Your task to perform on an android device: change alarm snooze length Image 0: 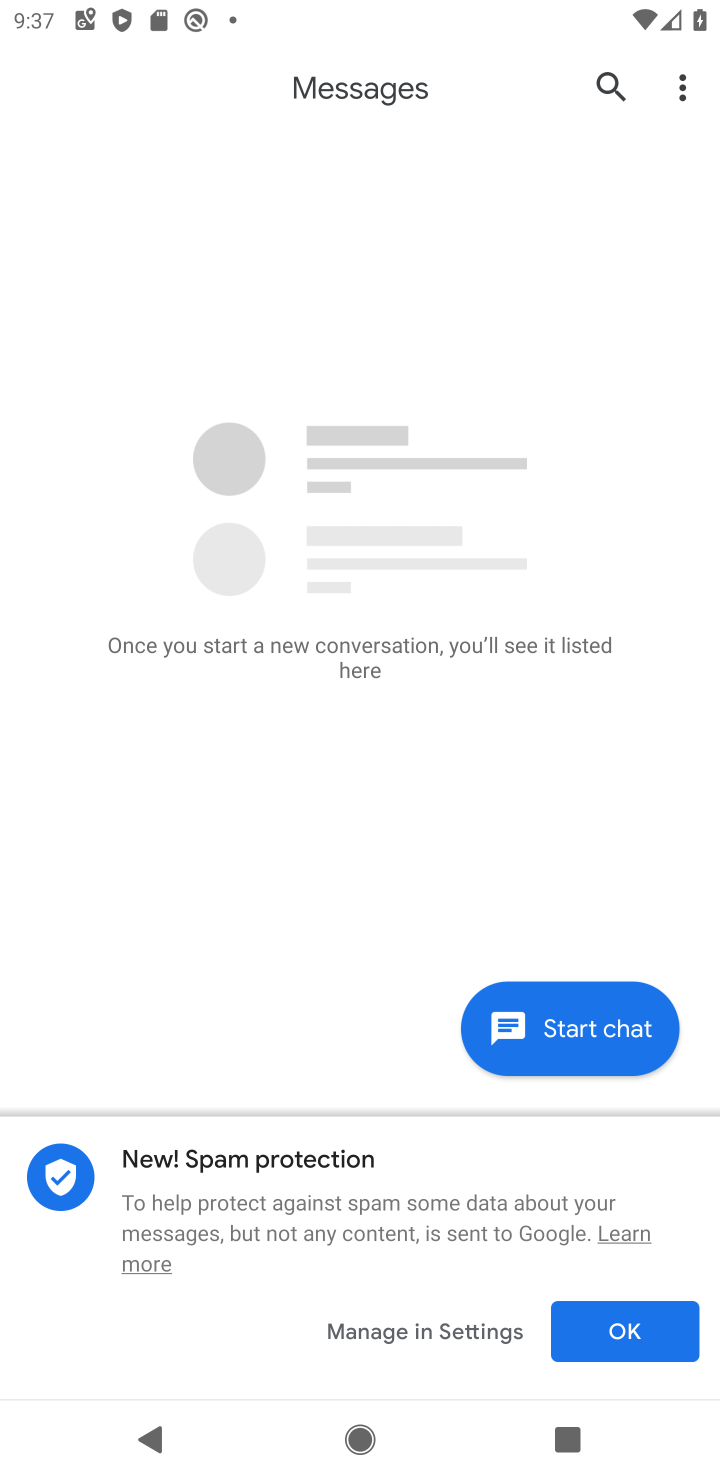
Step 0: press home button
Your task to perform on an android device: change alarm snooze length Image 1: 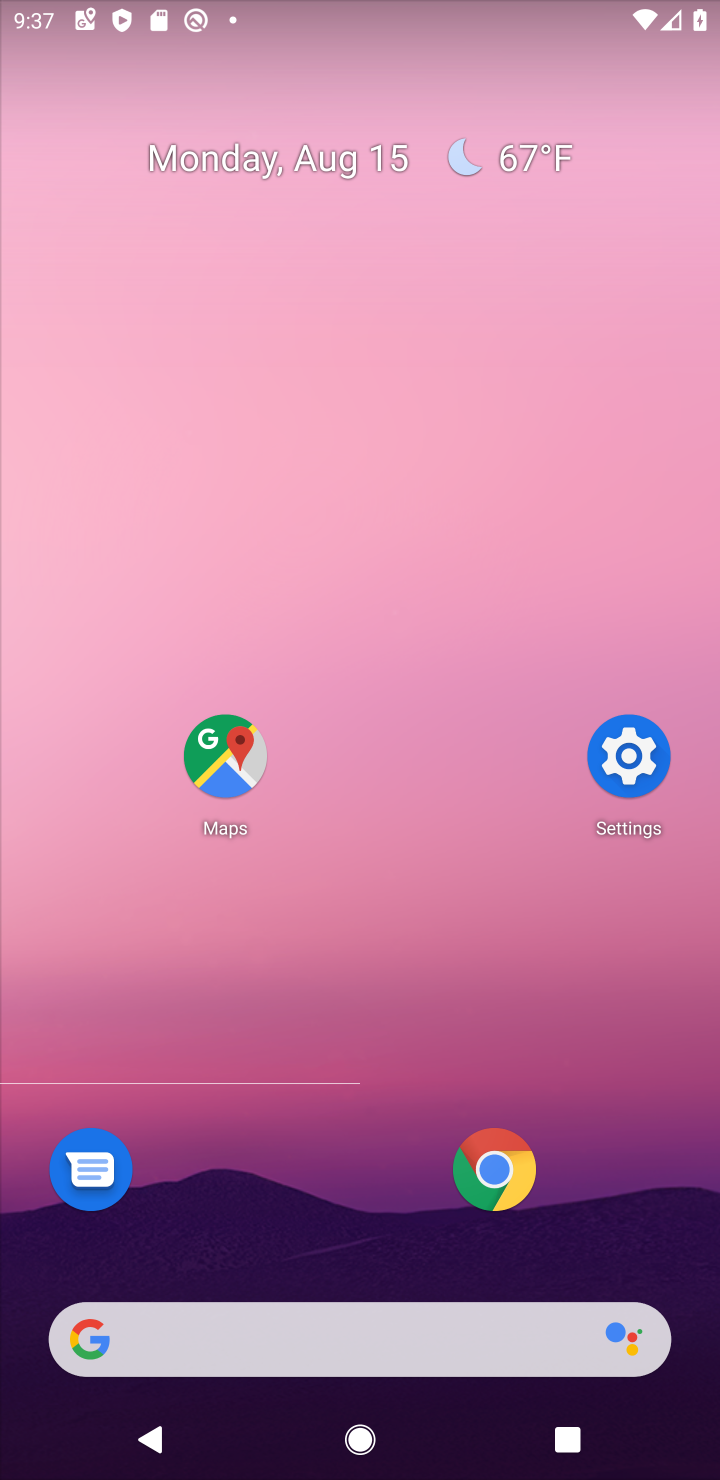
Step 1: drag from (450, 1279) to (563, 61)
Your task to perform on an android device: change alarm snooze length Image 2: 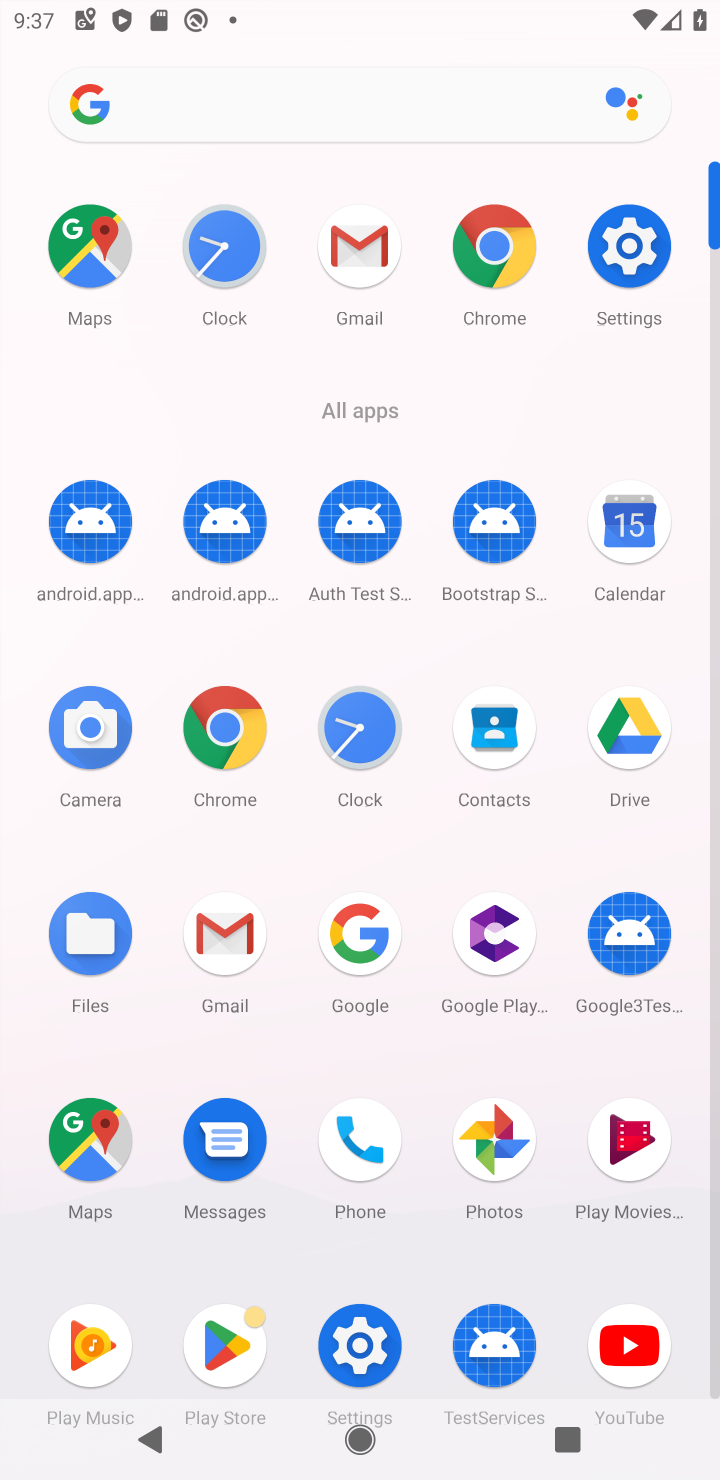
Step 2: click (368, 719)
Your task to perform on an android device: change alarm snooze length Image 3: 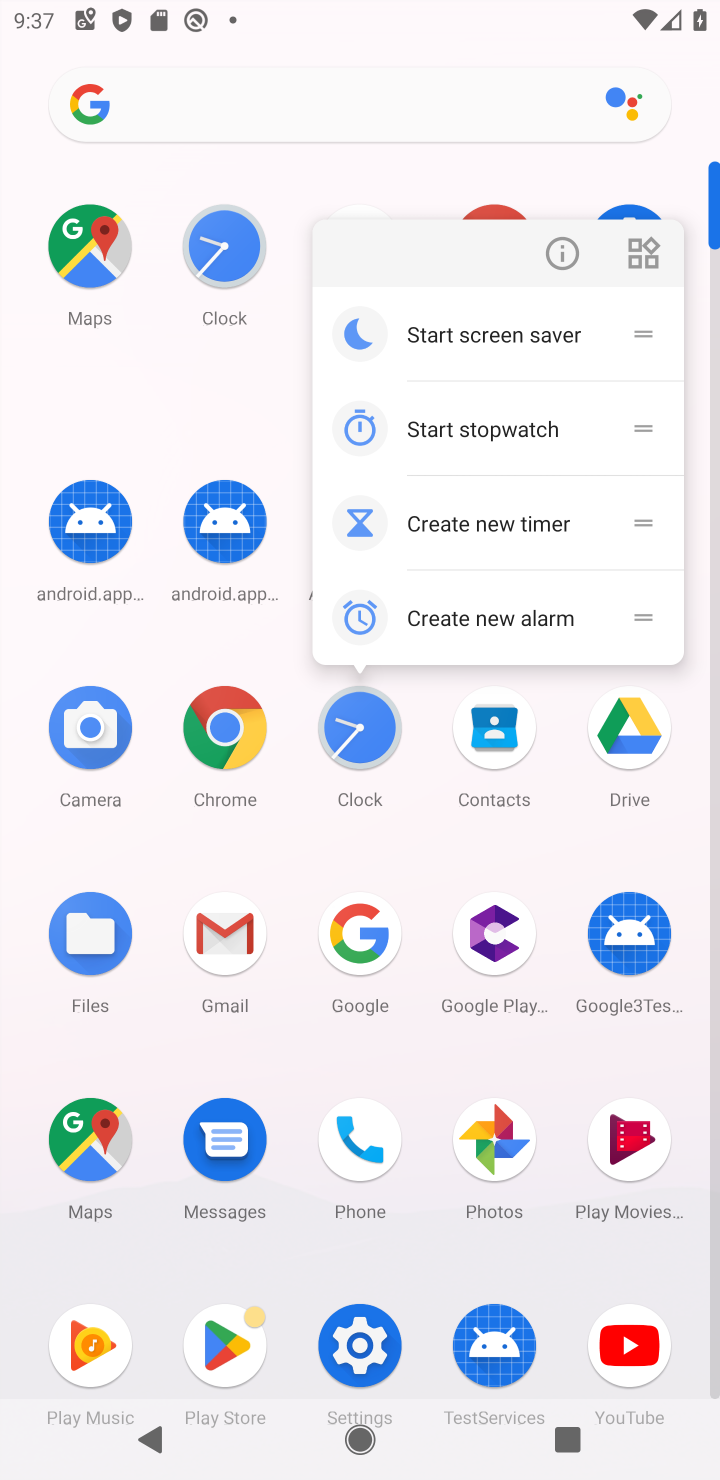
Step 3: click (368, 721)
Your task to perform on an android device: change alarm snooze length Image 4: 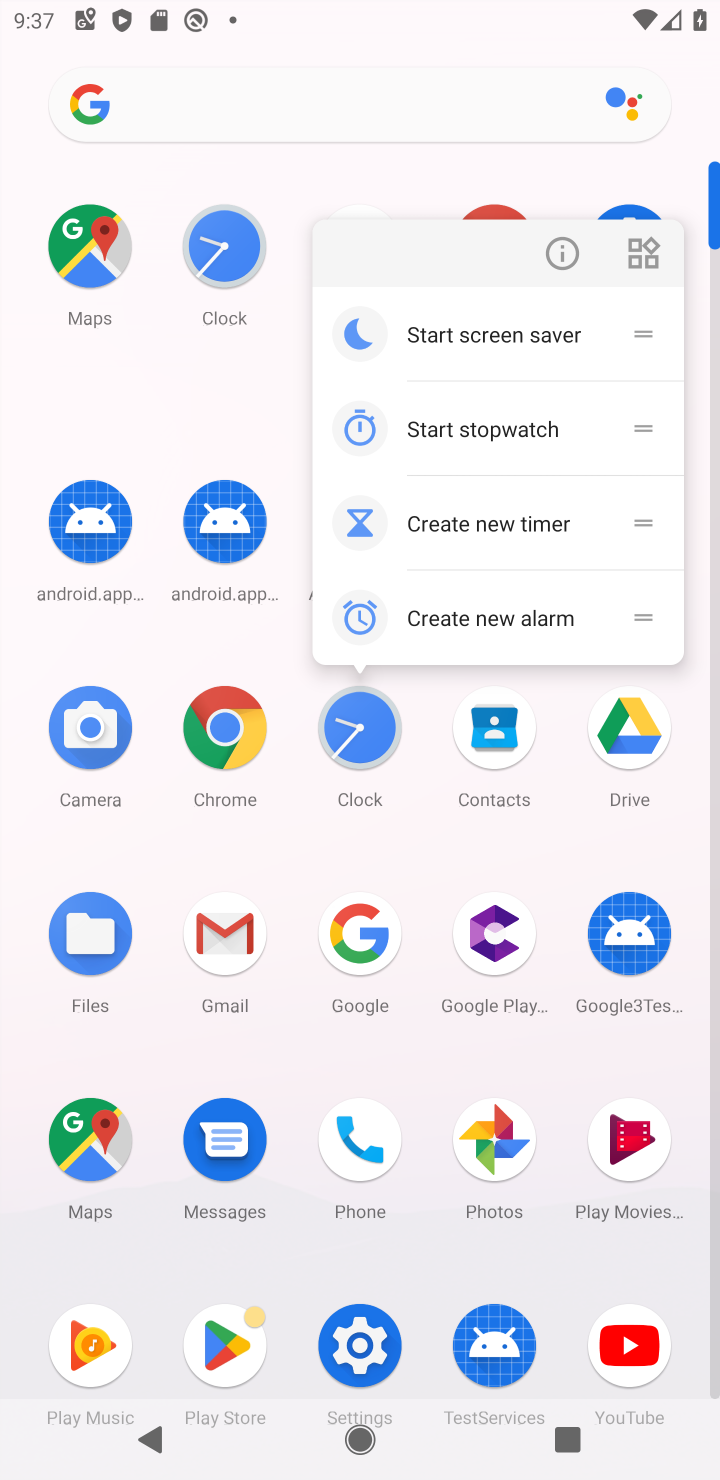
Step 4: click (358, 728)
Your task to perform on an android device: change alarm snooze length Image 5: 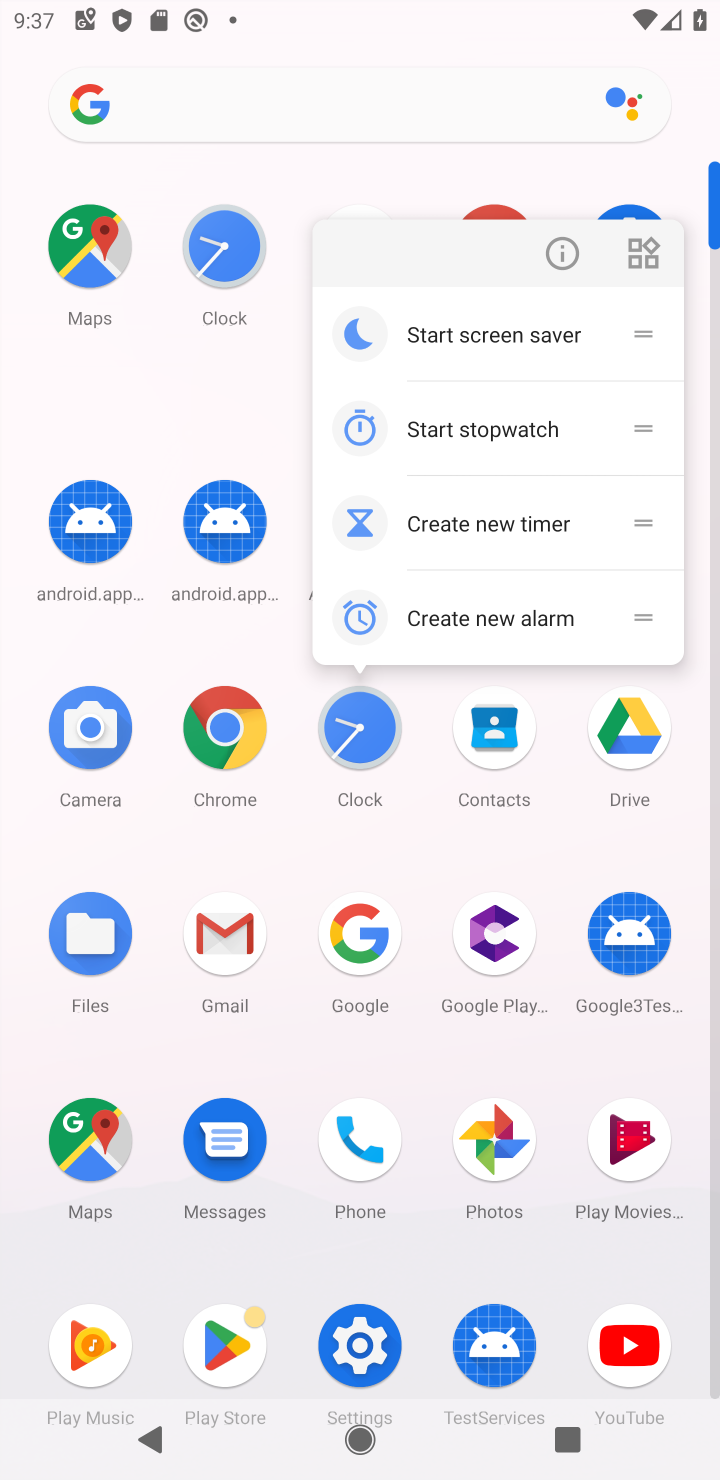
Step 5: click (358, 732)
Your task to perform on an android device: change alarm snooze length Image 6: 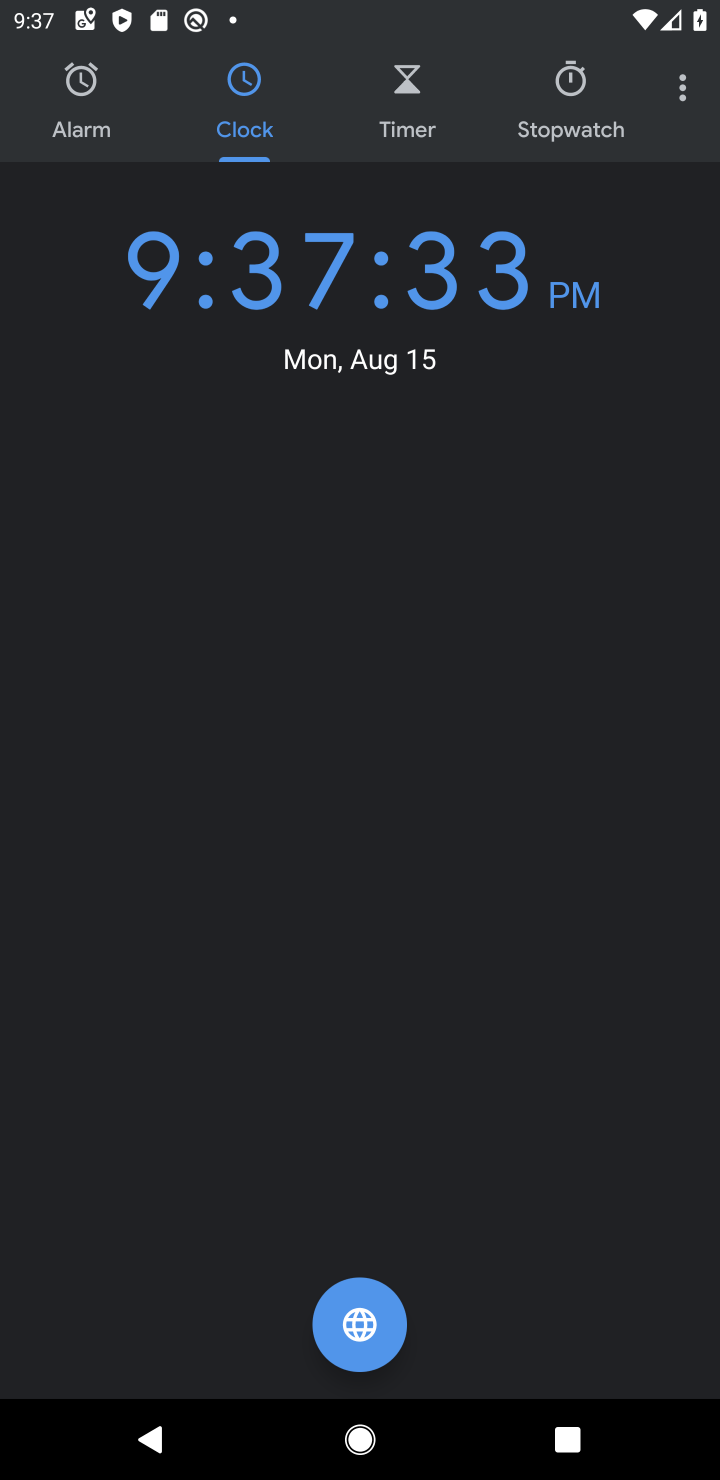
Step 6: click (688, 92)
Your task to perform on an android device: change alarm snooze length Image 7: 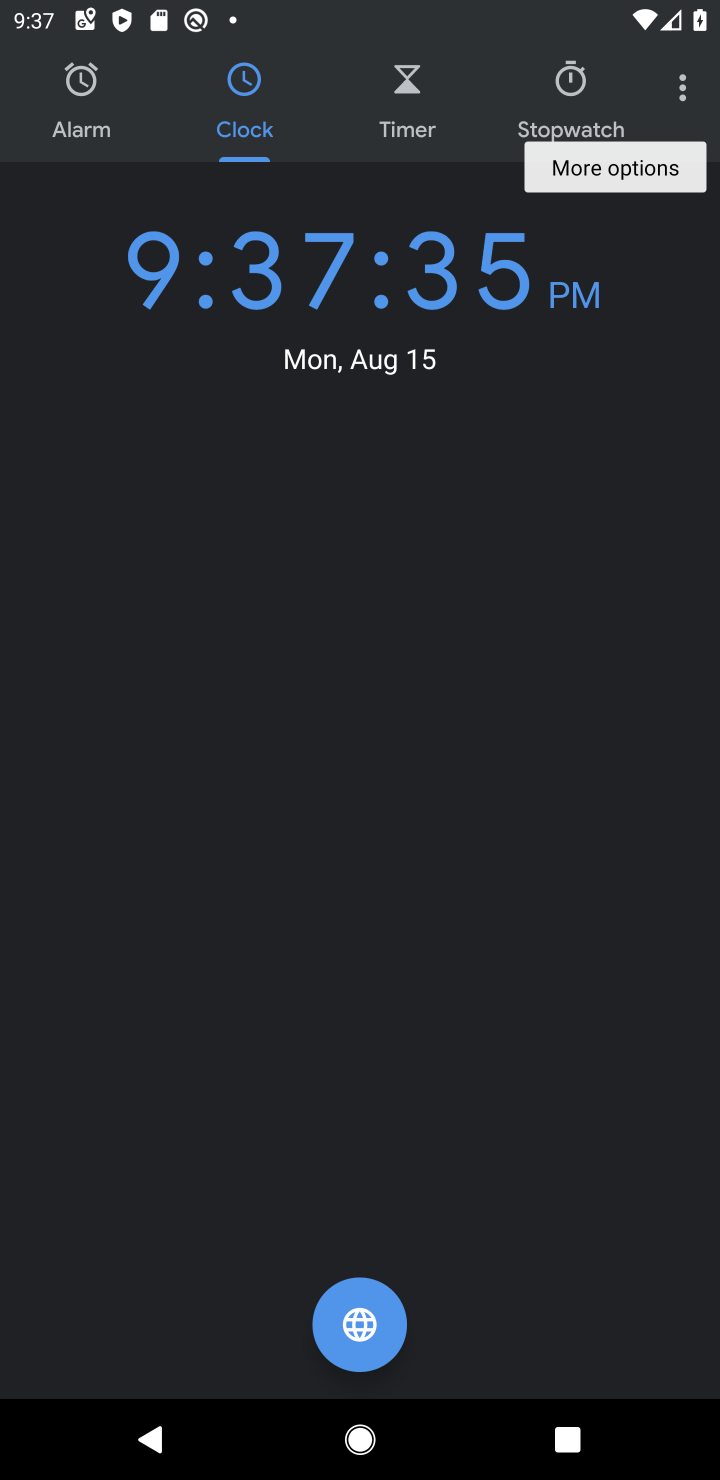
Step 7: click (680, 91)
Your task to perform on an android device: change alarm snooze length Image 8: 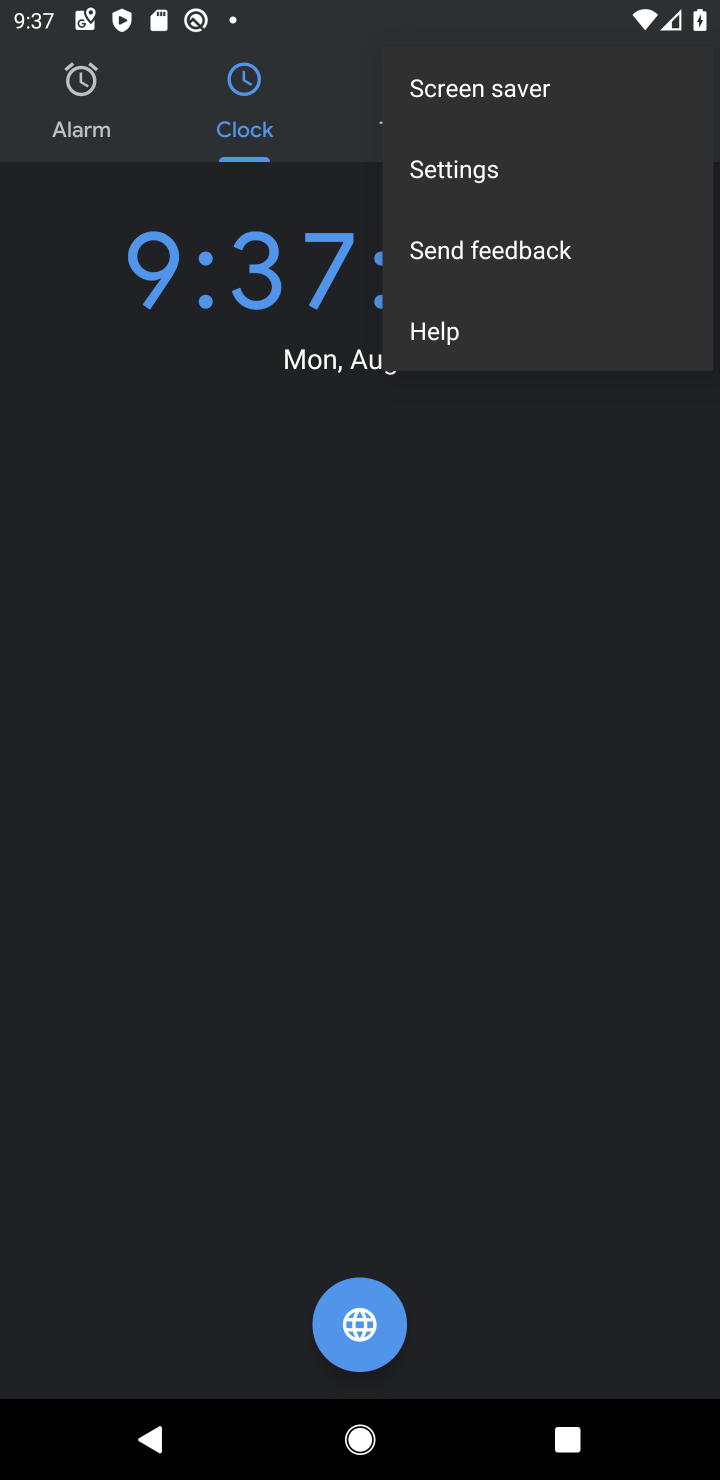
Step 8: click (470, 159)
Your task to perform on an android device: change alarm snooze length Image 9: 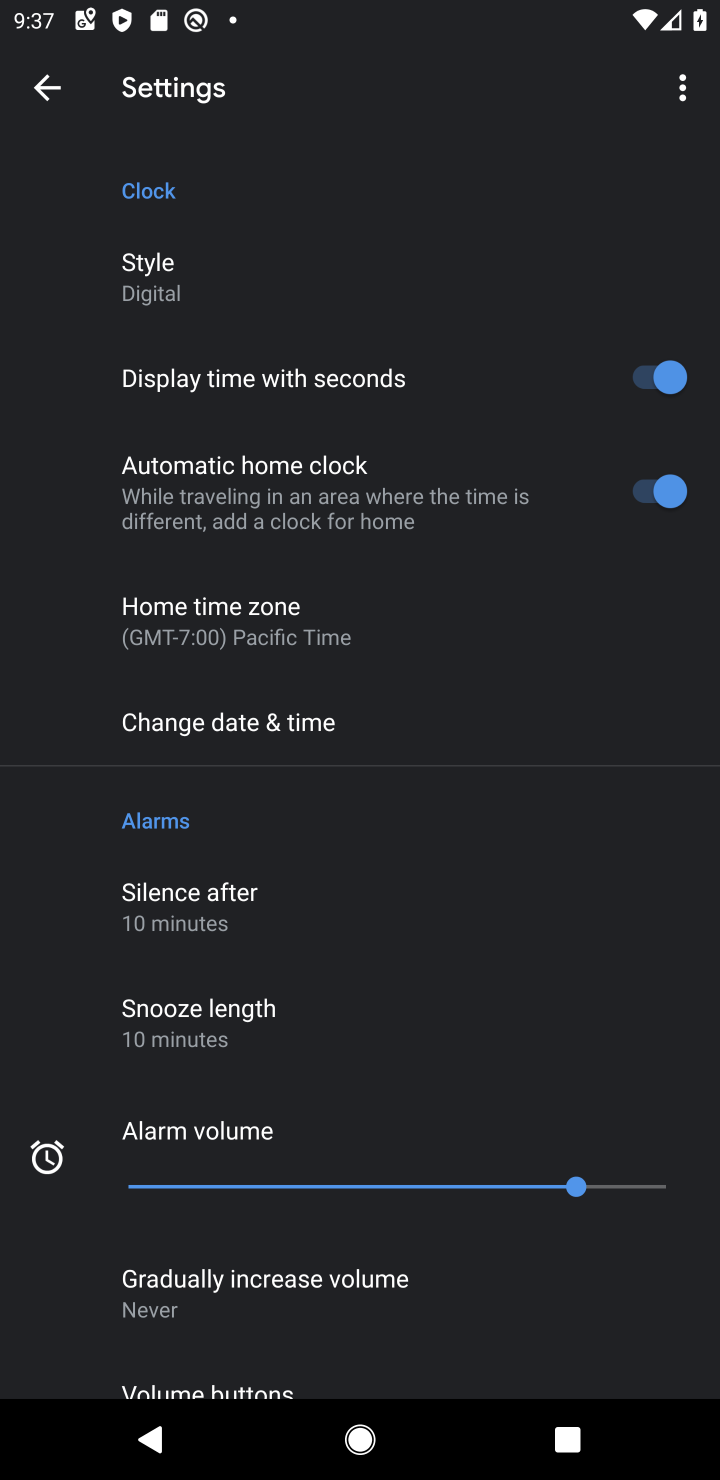
Step 9: drag from (493, 1093) to (643, 361)
Your task to perform on an android device: change alarm snooze length Image 10: 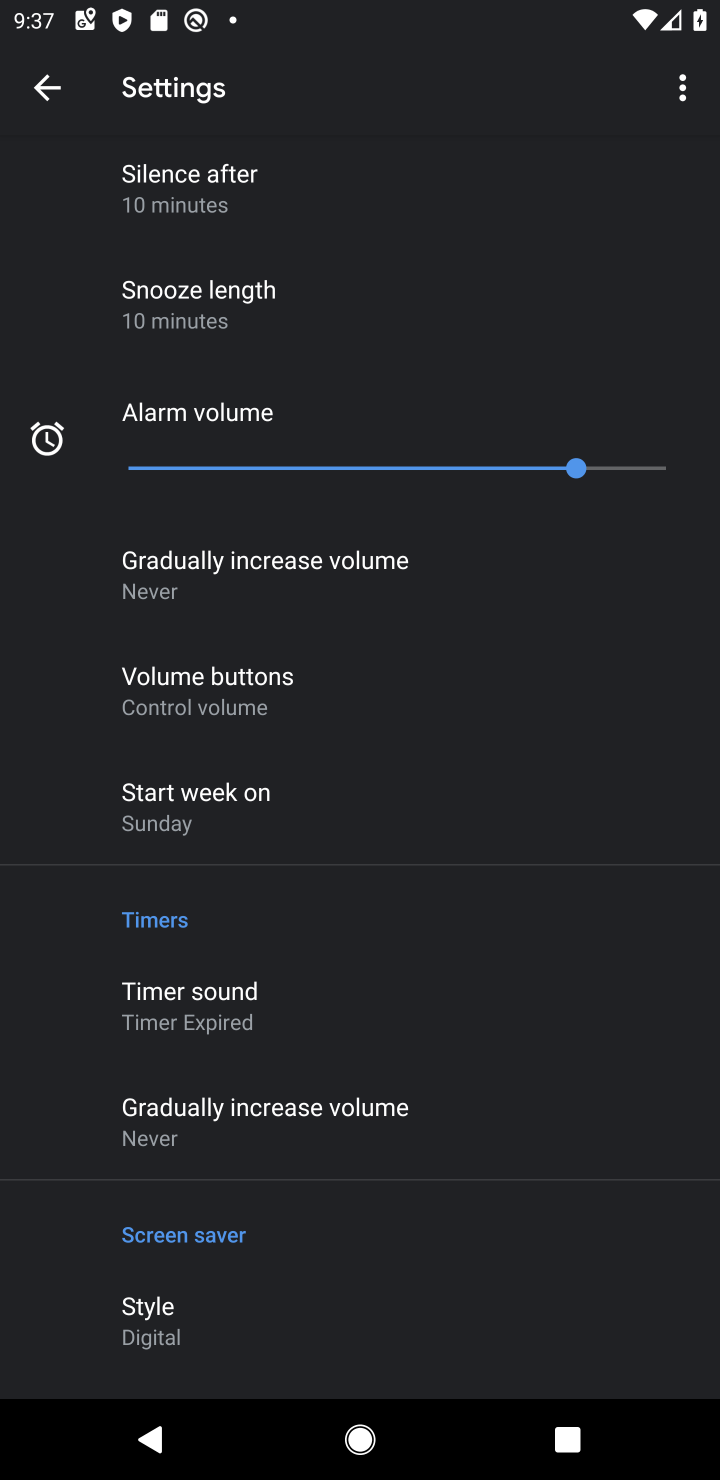
Step 10: click (220, 300)
Your task to perform on an android device: change alarm snooze length Image 11: 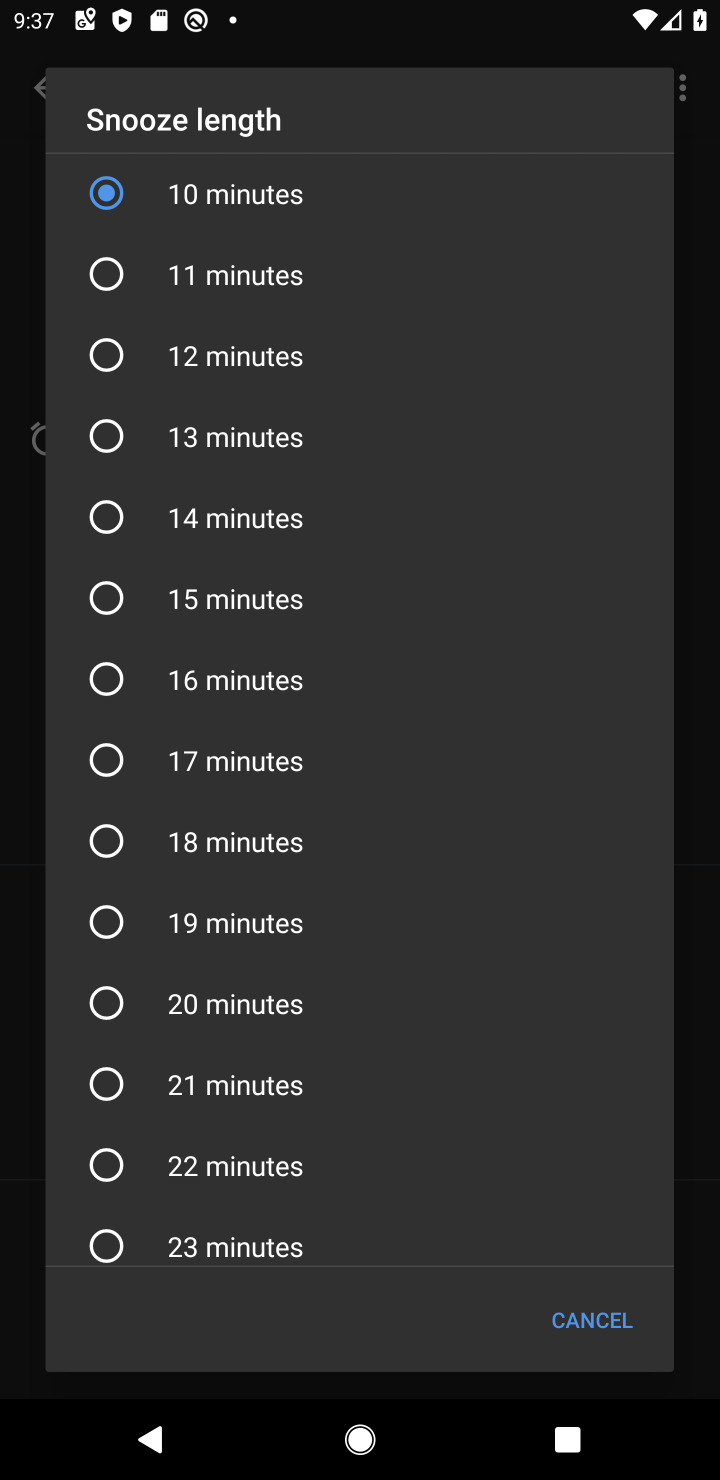
Step 11: click (102, 586)
Your task to perform on an android device: change alarm snooze length Image 12: 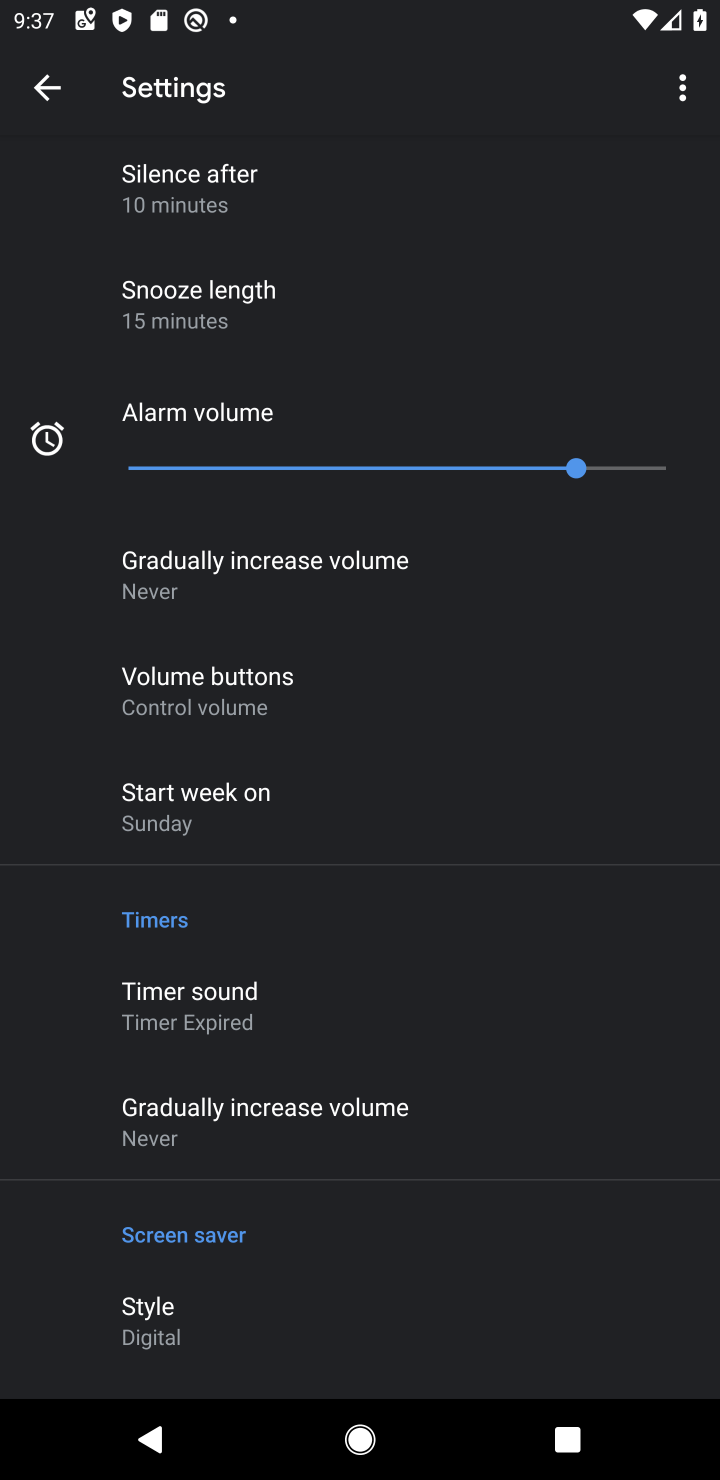
Step 12: task complete